Your task to perform on an android device: see creations saved in the google photos Image 0: 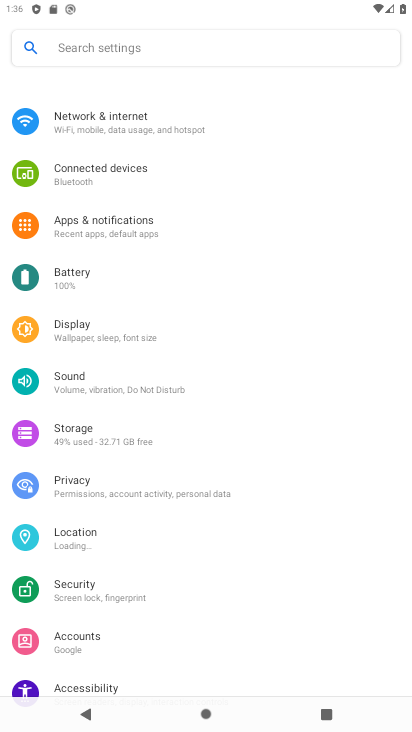
Step 0: press home button
Your task to perform on an android device: see creations saved in the google photos Image 1: 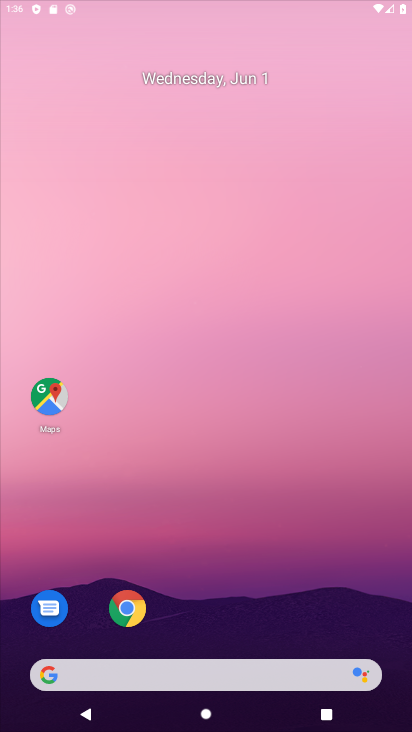
Step 1: drag from (397, 670) to (290, 19)
Your task to perform on an android device: see creations saved in the google photos Image 2: 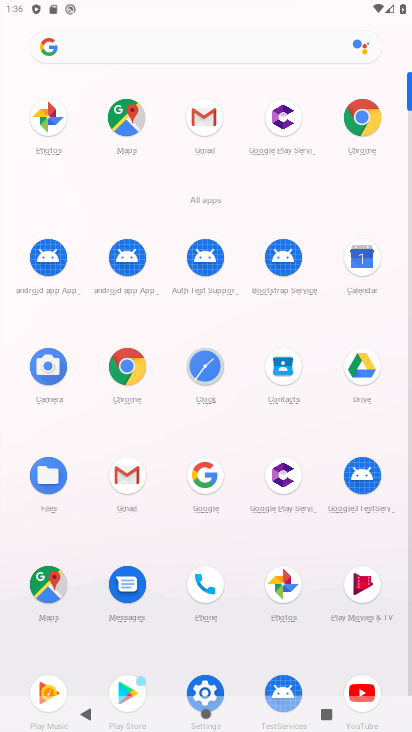
Step 2: click (285, 595)
Your task to perform on an android device: see creations saved in the google photos Image 3: 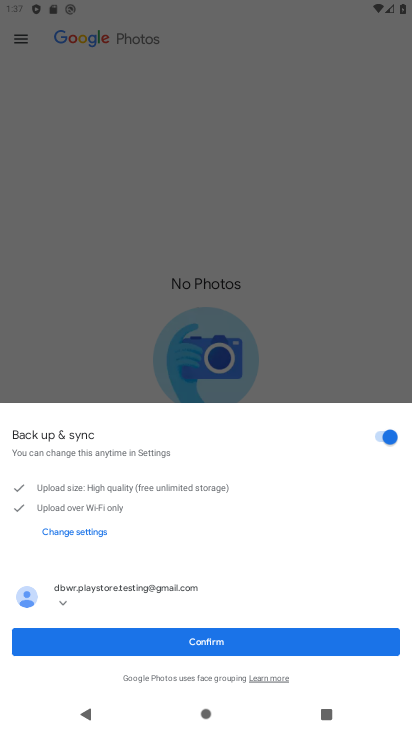
Step 3: click (188, 643)
Your task to perform on an android device: see creations saved in the google photos Image 4: 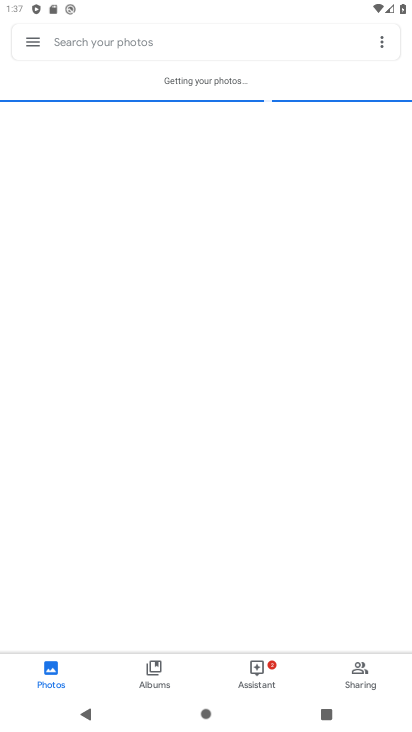
Step 4: click (149, 43)
Your task to perform on an android device: see creations saved in the google photos Image 5: 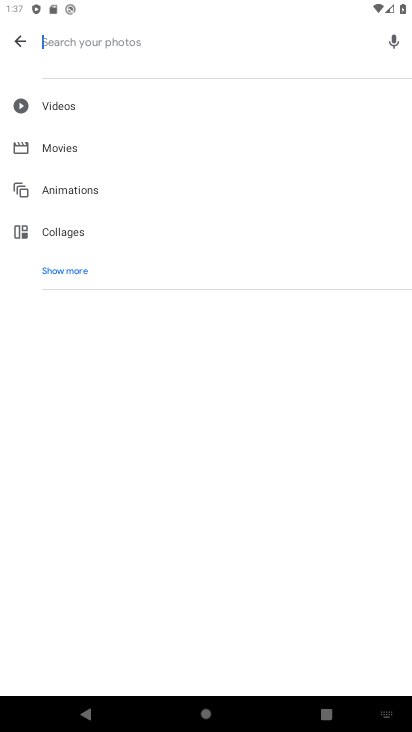
Step 5: click (86, 282)
Your task to perform on an android device: see creations saved in the google photos Image 6: 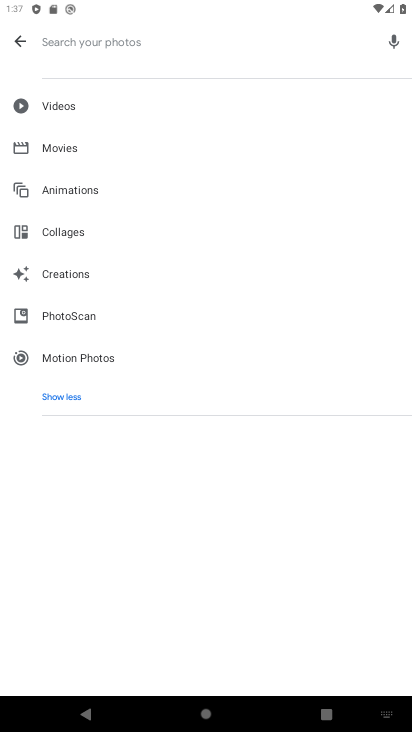
Step 6: click (62, 281)
Your task to perform on an android device: see creations saved in the google photos Image 7: 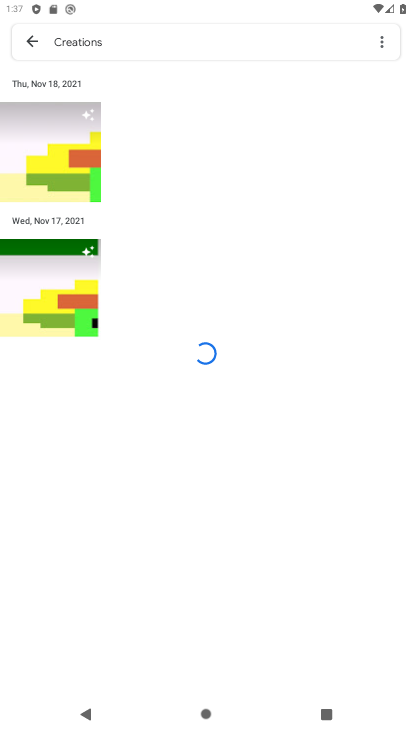
Step 7: task complete